Your task to perform on an android device: Open display settings Image 0: 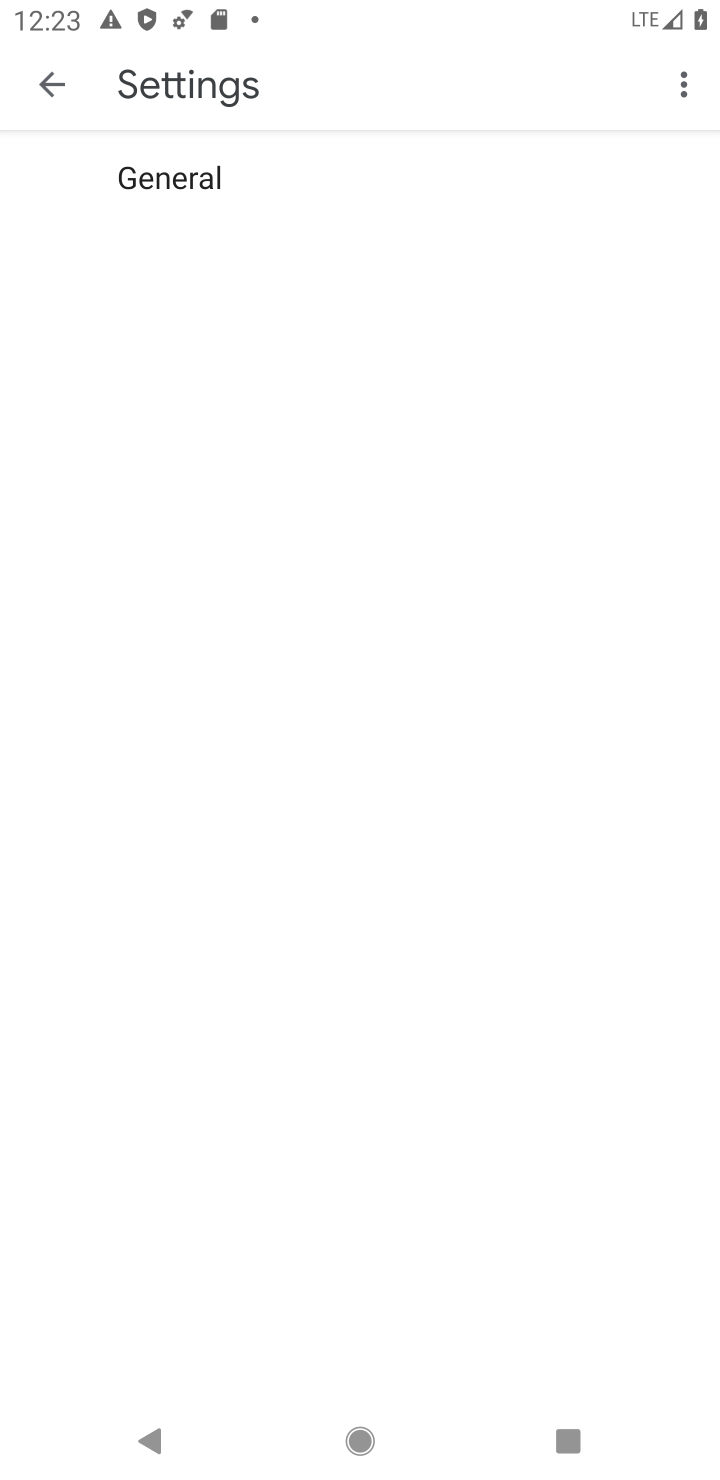
Step 0: click (48, 75)
Your task to perform on an android device: Open display settings Image 1: 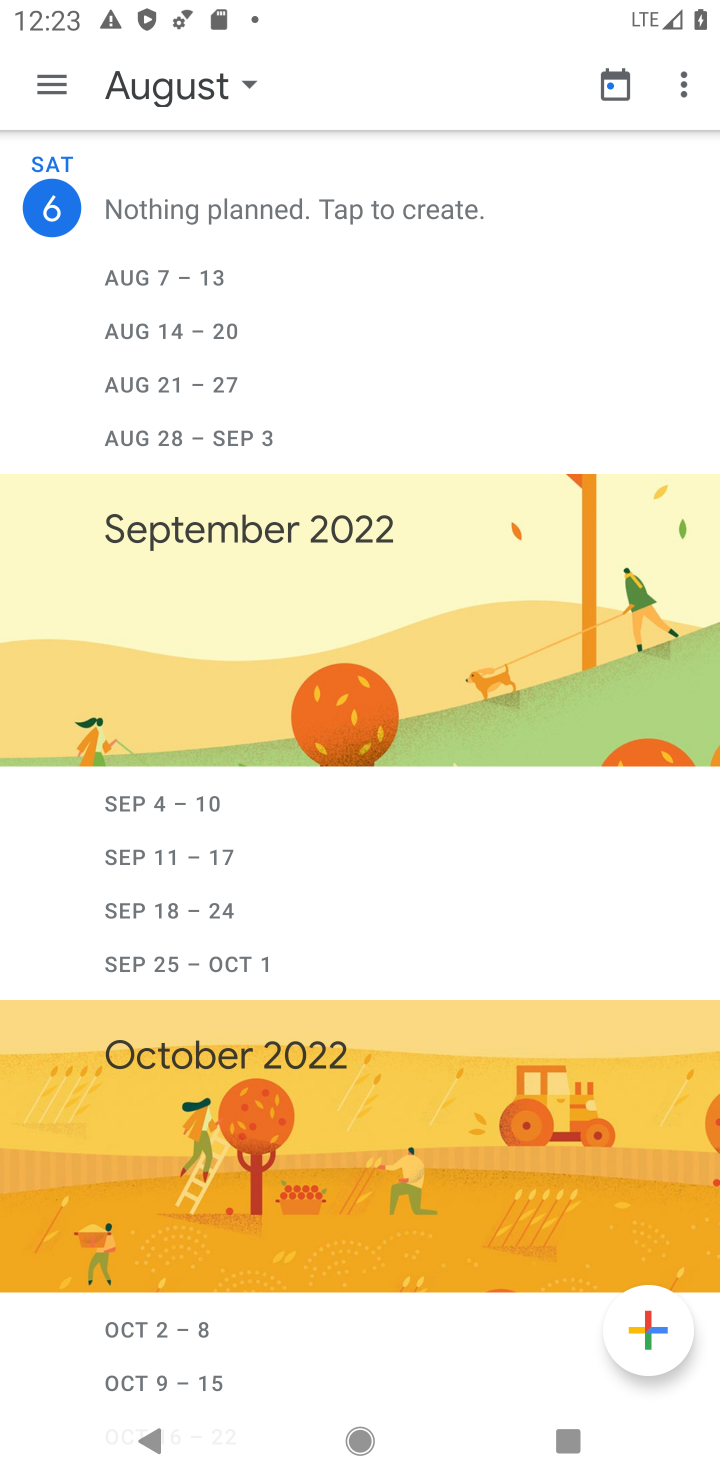
Step 1: click (354, 1441)
Your task to perform on an android device: Open display settings Image 2: 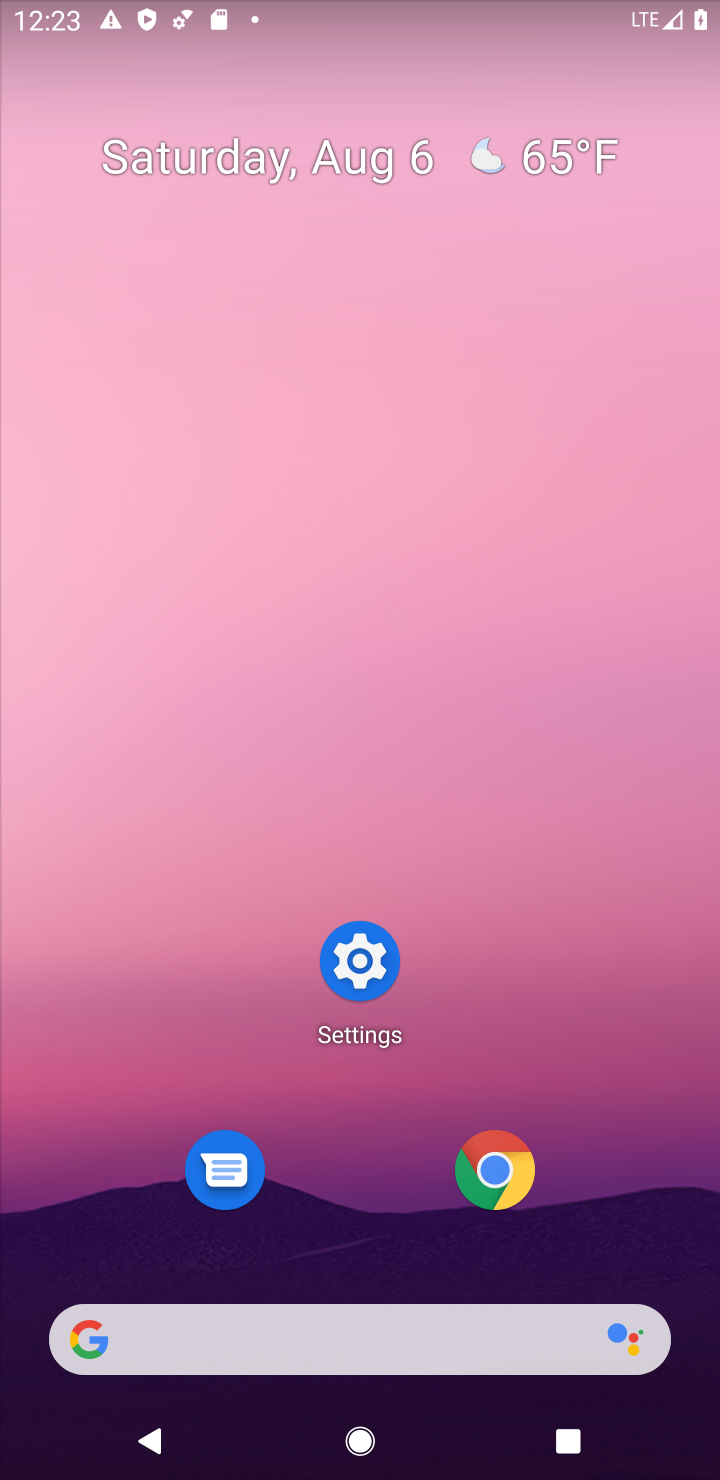
Step 2: click (340, 974)
Your task to perform on an android device: Open display settings Image 3: 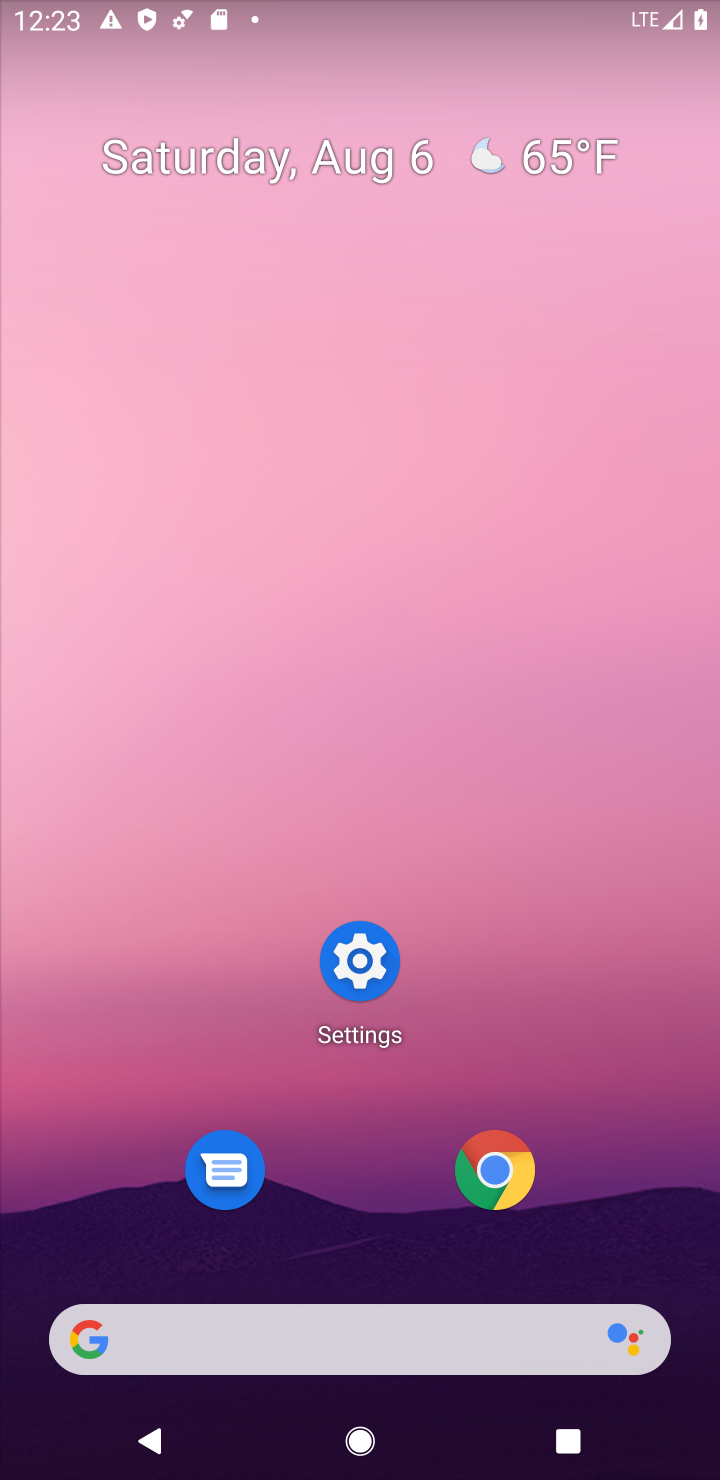
Step 3: click (340, 974)
Your task to perform on an android device: Open display settings Image 4: 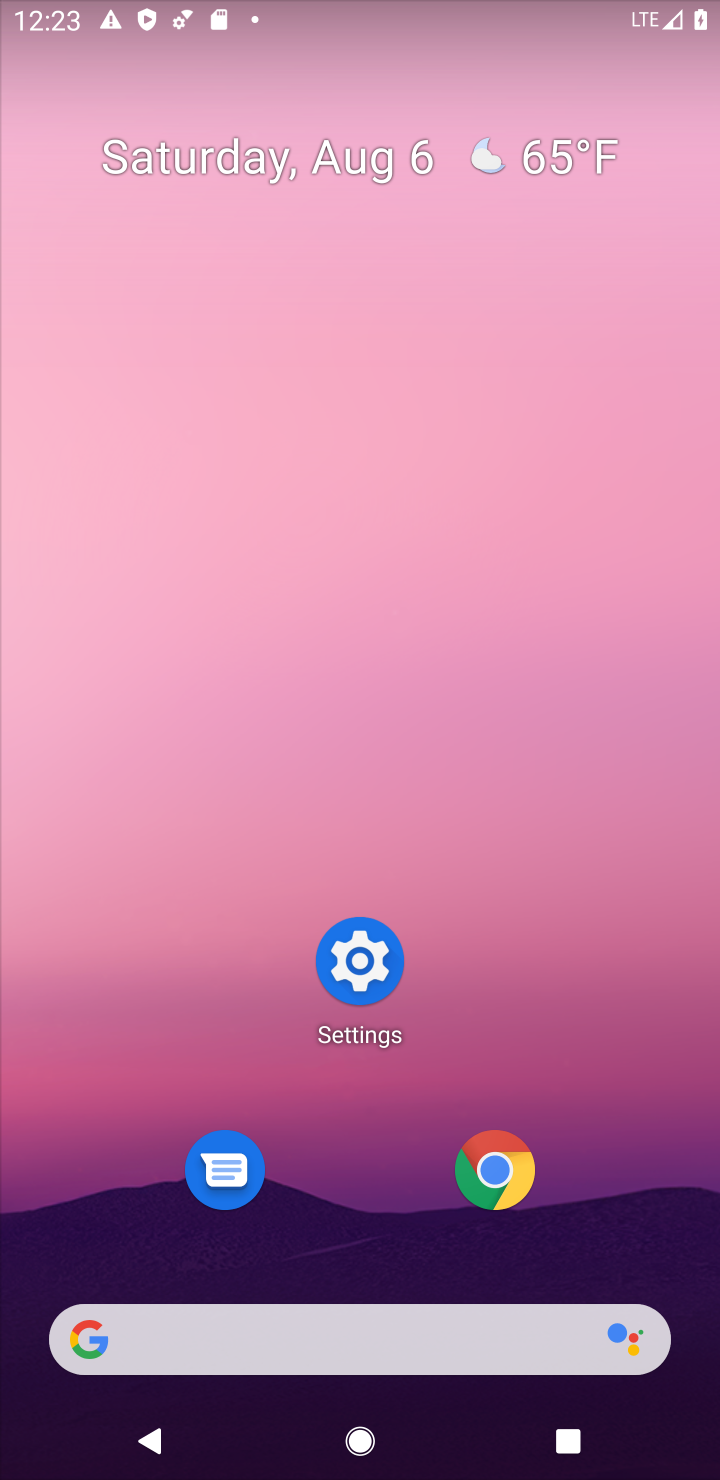
Step 4: click (340, 974)
Your task to perform on an android device: Open display settings Image 5: 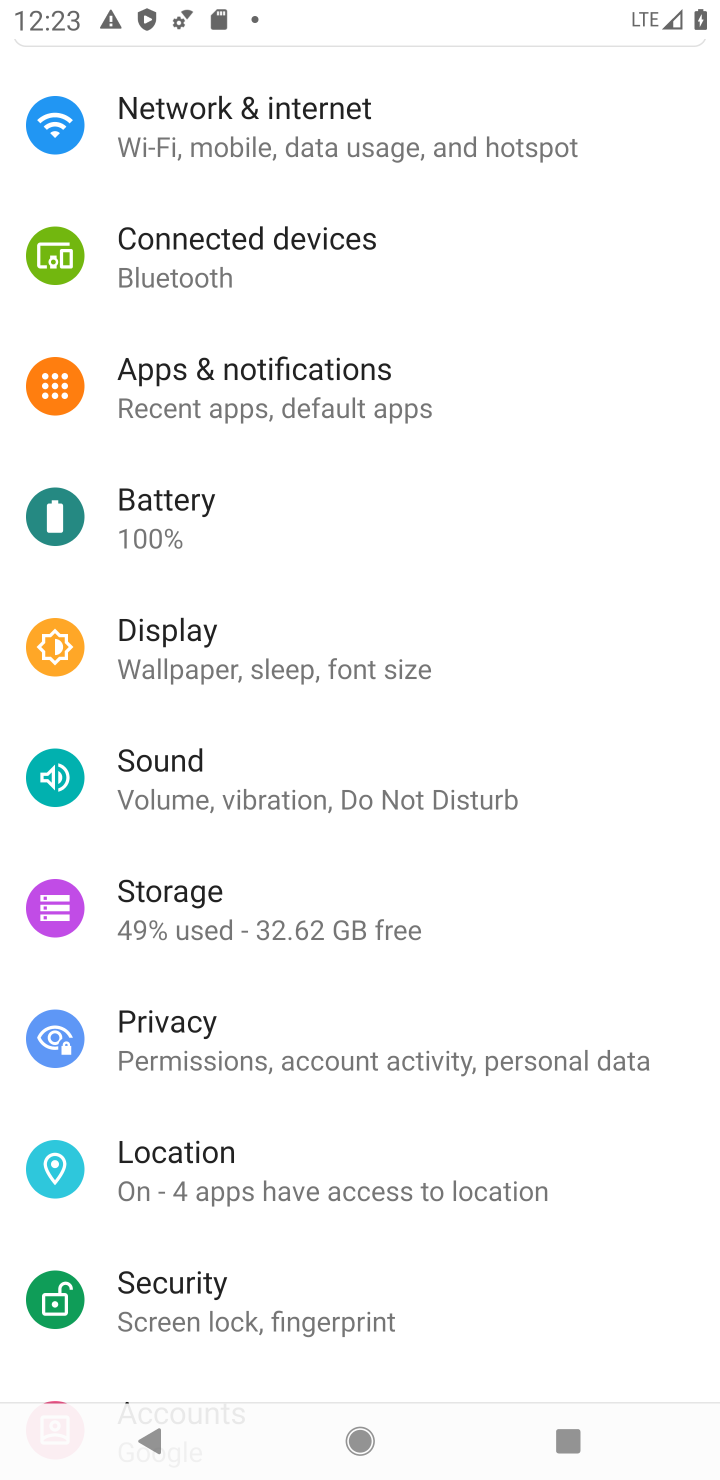
Step 5: click (261, 663)
Your task to perform on an android device: Open display settings Image 6: 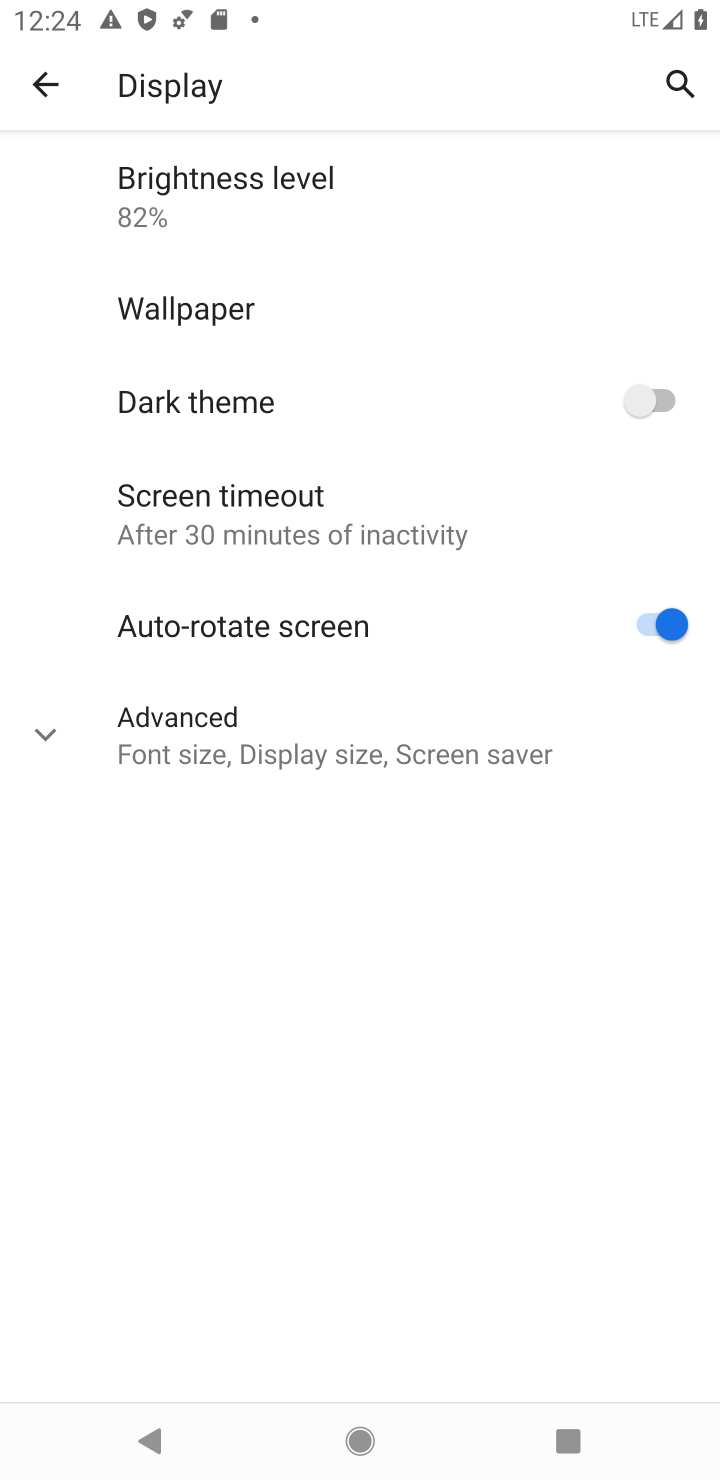
Step 6: task complete